Your task to perform on an android device: Search for "rayovac triple a" on bestbuy.com, select the first entry, and add it to the cart. Image 0: 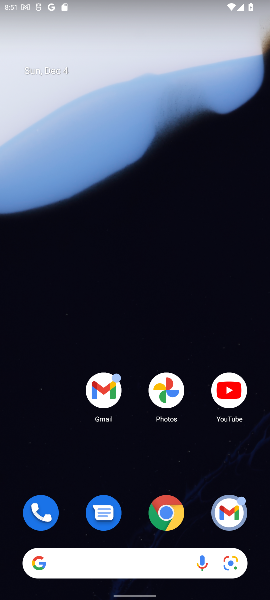
Step 0: click (161, 520)
Your task to perform on an android device: Search for "rayovac triple a" on bestbuy.com, select the first entry, and add it to the cart. Image 1: 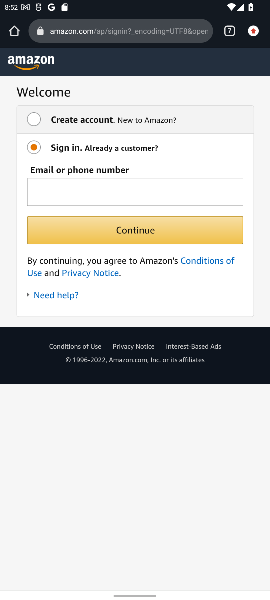
Step 1: click (228, 35)
Your task to perform on an android device: Search for "rayovac triple a" on bestbuy.com, select the first entry, and add it to the cart. Image 2: 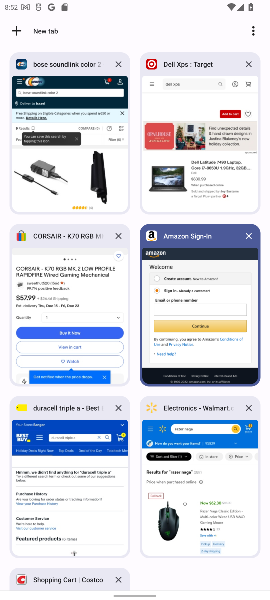
Step 2: click (82, 495)
Your task to perform on an android device: Search for "rayovac triple a" on bestbuy.com, select the first entry, and add it to the cart. Image 3: 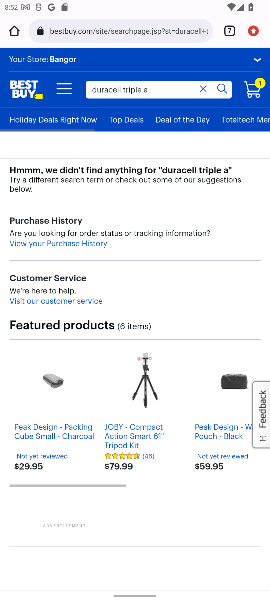
Step 3: click (202, 88)
Your task to perform on an android device: Search for "rayovac triple a" on bestbuy.com, select the first entry, and add it to the cart. Image 4: 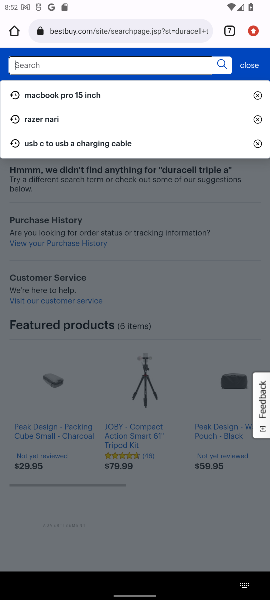
Step 4: type "rayovac triple a""
Your task to perform on an android device: Search for "rayovac triple a" on bestbuy.com, select the first entry, and add it to the cart. Image 5: 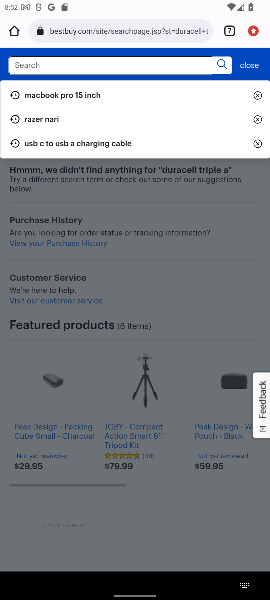
Step 5: click (107, 60)
Your task to perform on an android device: Search for "rayovac triple a" on bestbuy.com, select the first entry, and add it to the cart. Image 6: 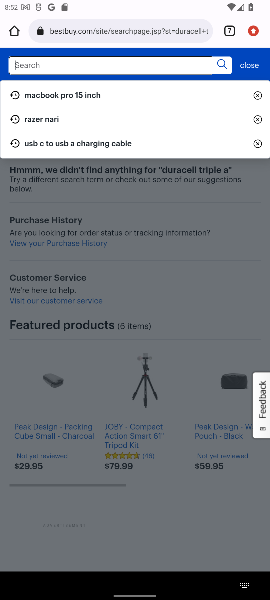
Step 6: type "rayovac triple a""
Your task to perform on an android device: Search for "rayovac triple a" on bestbuy.com, select the first entry, and add it to the cart. Image 7: 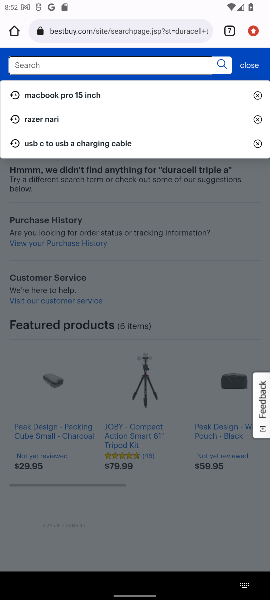
Step 7: click (198, 194)
Your task to perform on an android device: Search for "rayovac triple a" on bestbuy.com, select the first entry, and add it to the cart. Image 8: 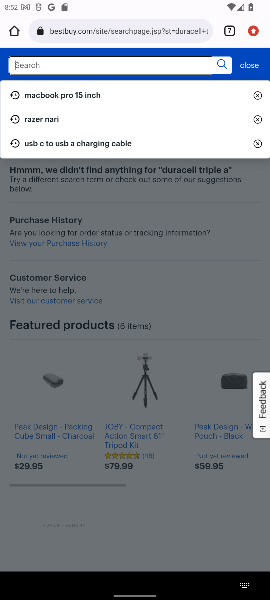
Step 8: click (198, 194)
Your task to perform on an android device: Search for "rayovac triple a" on bestbuy.com, select the first entry, and add it to the cart. Image 9: 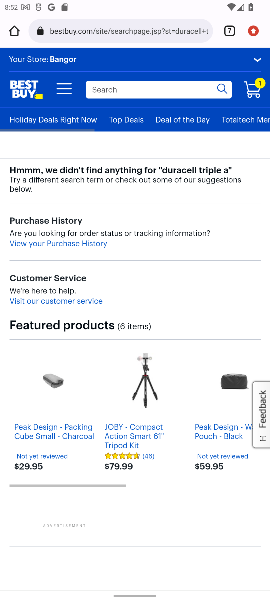
Step 9: click (153, 88)
Your task to perform on an android device: Search for "rayovac triple a" on bestbuy.com, select the first entry, and add it to the cart. Image 10: 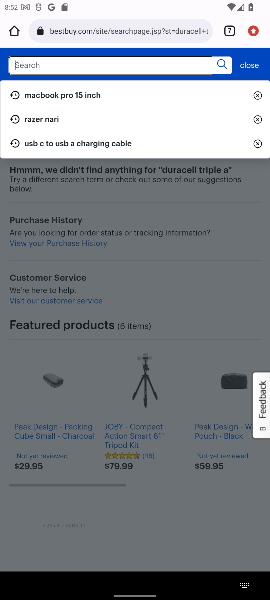
Step 10: type "rayovac triple a""
Your task to perform on an android device: Search for "rayovac triple a" on bestbuy.com, select the first entry, and add it to the cart. Image 11: 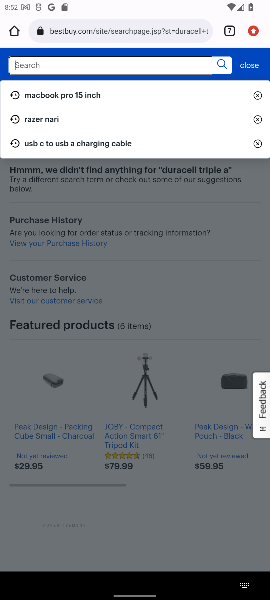
Step 11: click (229, 258)
Your task to perform on an android device: Search for "rayovac triple a" on bestbuy.com, select the first entry, and add it to the cart. Image 12: 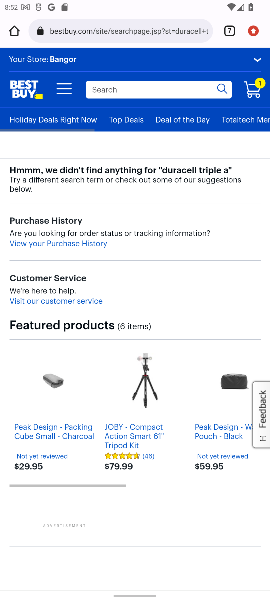
Step 12: press back button
Your task to perform on an android device: Search for "rayovac triple a" on bestbuy.com, select the first entry, and add it to the cart. Image 13: 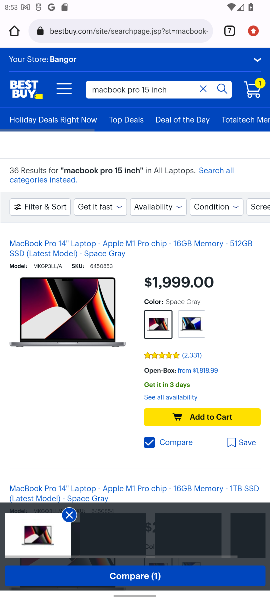
Step 13: click (205, 86)
Your task to perform on an android device: Search for "rayovac triple a" on bestbuy.com, select the first entry, and add it to the cart. Image 14: 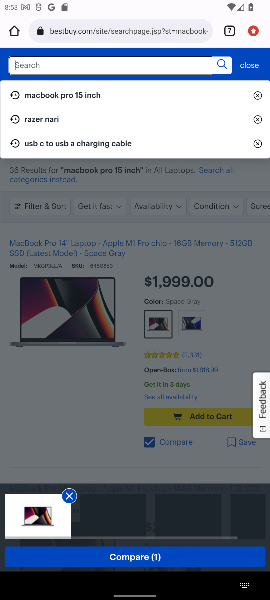
Step 14: type "rayovac triple a""
Your task to perform on an android device: Search for "rayovac triple a" on bestbuy.com, select the first entry, and add it to the cart. Image 15: 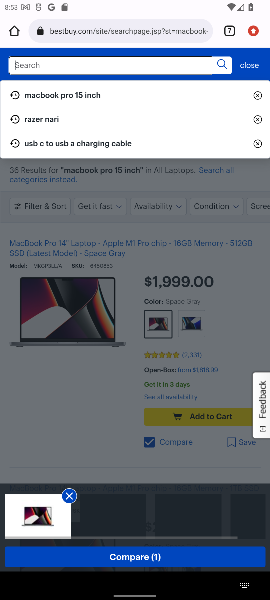
Step 15: click (73, 493)
Your task to perform on an android device: Search for "rayovac triple a" on bestbuy.com, select the first entry, and add it to the cart. Image 16: 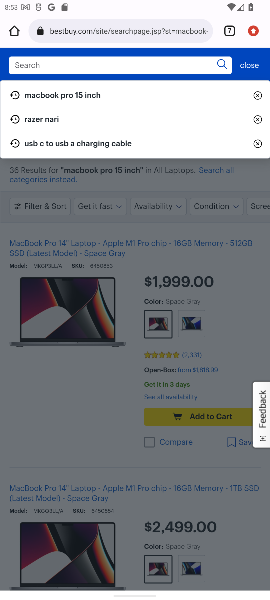
Step 16: click (73, 493)
Your task to perform on an android device: Search for "rayovac triple a" on bestbuy.com, select the first entry, and add it to the cart. Image 17: 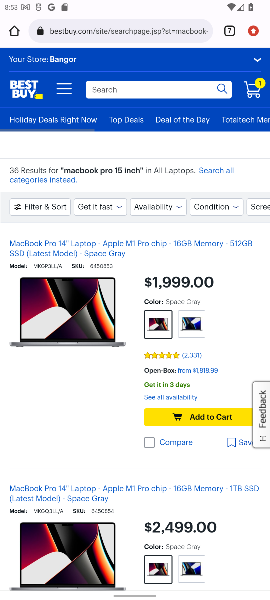
Step 17: click (128, 88)
Your task to perform on an android device: Search for "rayovac triple a" on bestbuy.com, select the first entry, and add it to the cart. Image 18: 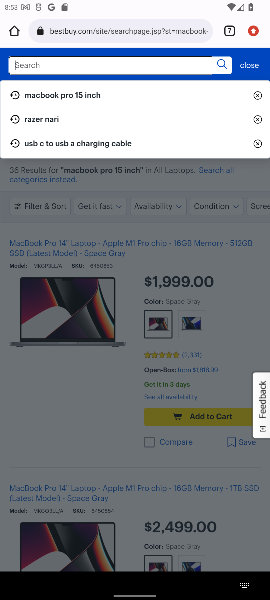
Step 18: type "rayovac triple a""
Your task to perform on an android device: Search for "rayovac triple a" on bestbuy.com, select the first entry, and add it to the cart. Image 19: 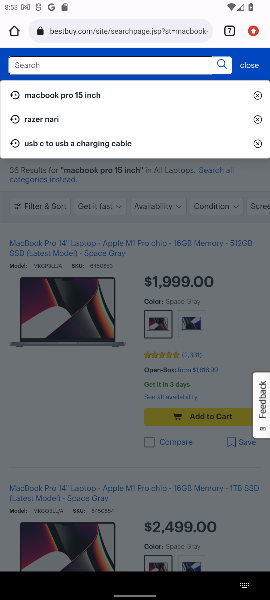
Step 19: task complete